Your task to perform on an android device: move an email to a new category in the gmail app Image 0: 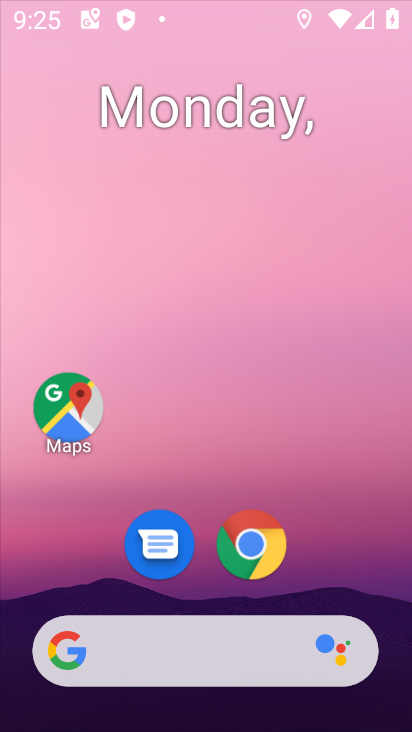
Step 0: drag from (298, 481) to (234, 45)
Your task to perform on an android device: move an email to a new category in the gmail app Image 1: 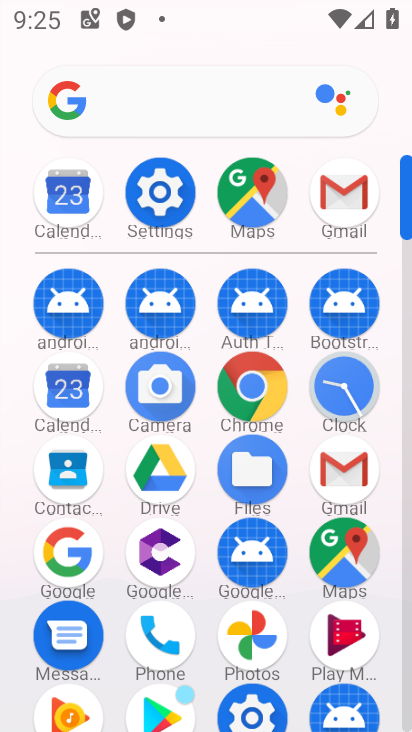
Step 1: click (344, 196)
Your task to perform on an android device: move an email to a new category in the gmail app Image 2: 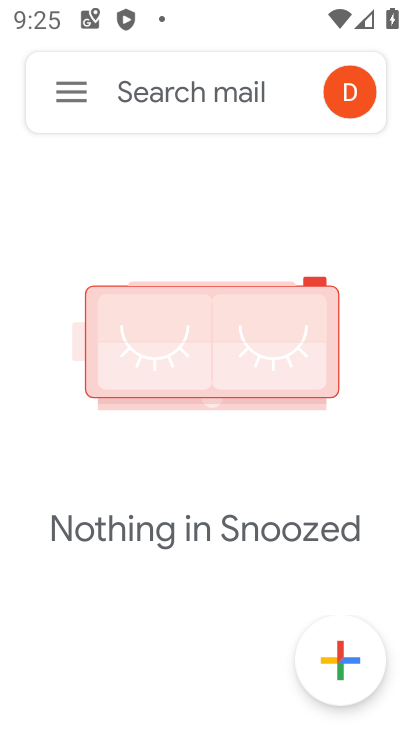
Step 2: click (68, 91)
Your task to perform on an android device: move an email to a new category in the gmail app Image 3: 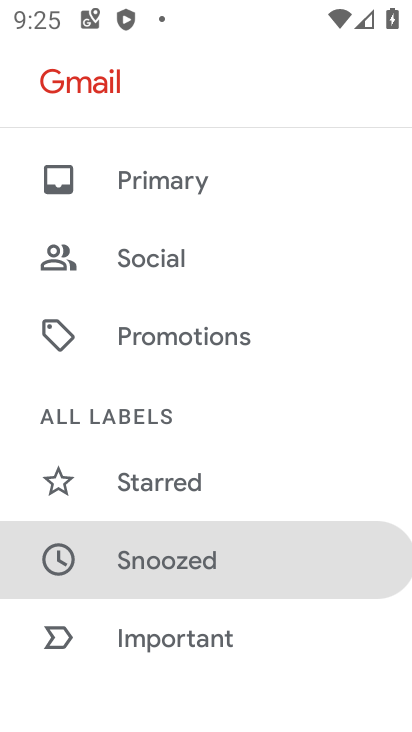
Step 3: drag from (236, 478) to (230, 156)
Your task to perform on an android device: move an email to a new category in the gmail app Image 4: 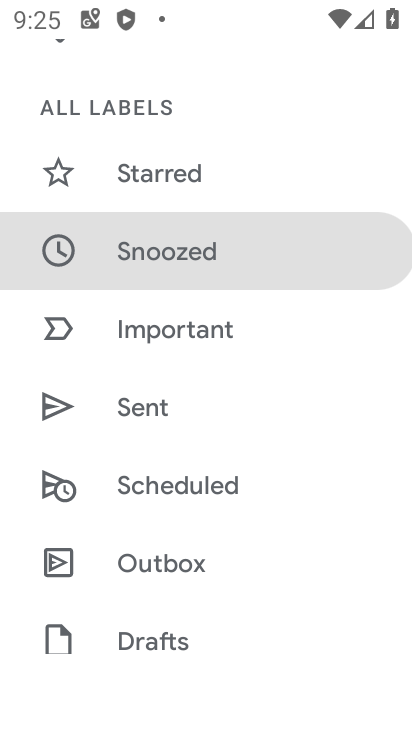
Step 4: drag from (292, 557) to (280, 198)
Your task to perform on an android device: move an email to a new category in the gmail app Image 5: 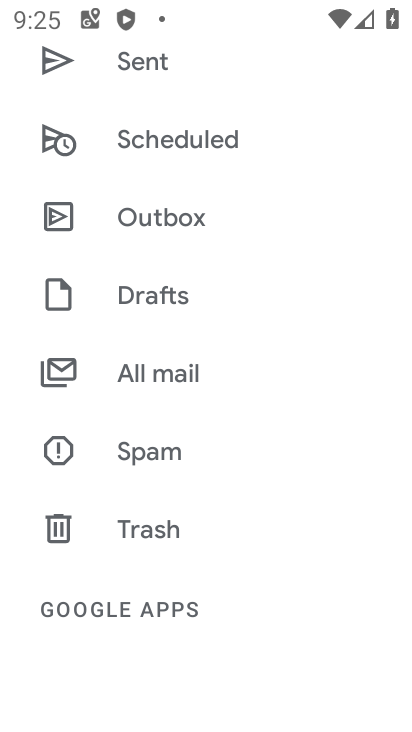
Step 5: click (159, 379)
Your task to perform on an android device: move an email to a new category in the gmail app Image 6: 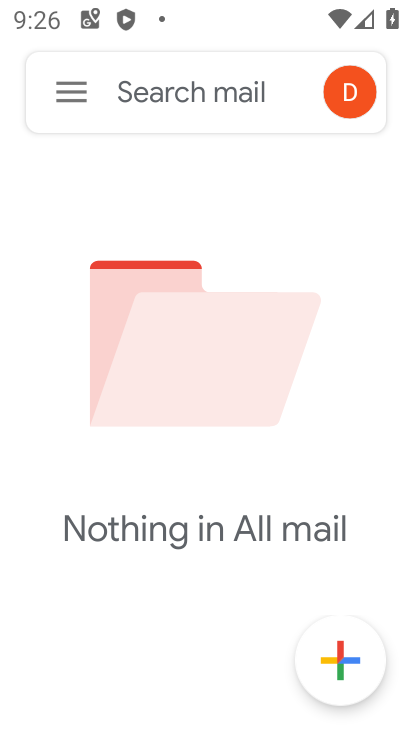
Step 6: click (64, 87)
Your task to perform on an android device: move an email to a new category in the gmail app Image 7: 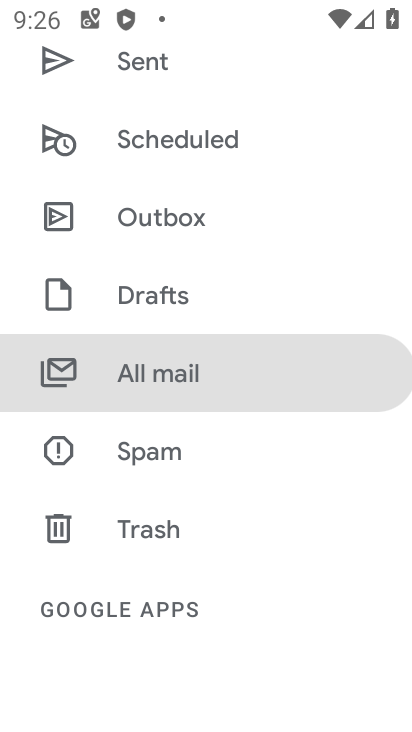
Step 7: click (150, 384)
Your task to perform on an android device: move an email to a new category in the gmail app Image 8: 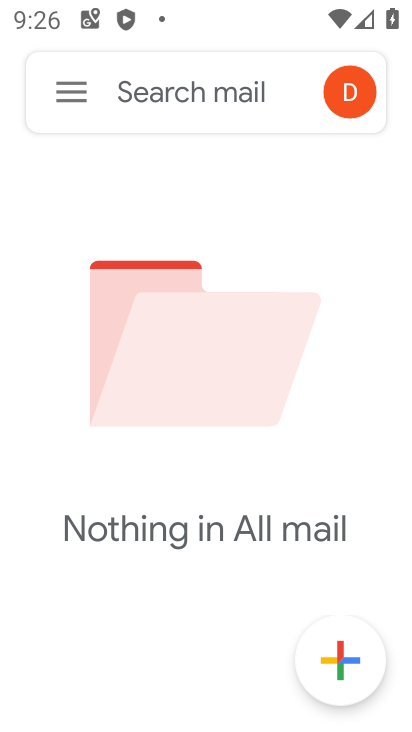
Step 8: task complete